Your task to perform on an android device: What's on my calendar tomorrow? Image 0: 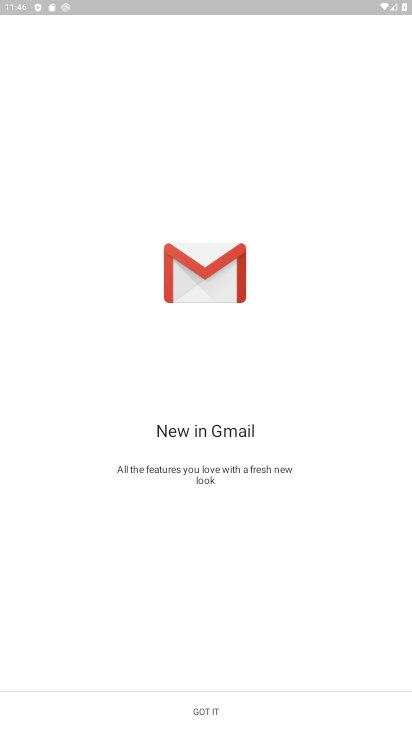
Step 0: press home button
Your task to perform on an android device: What's on my calendar tomorrow? Image 1: 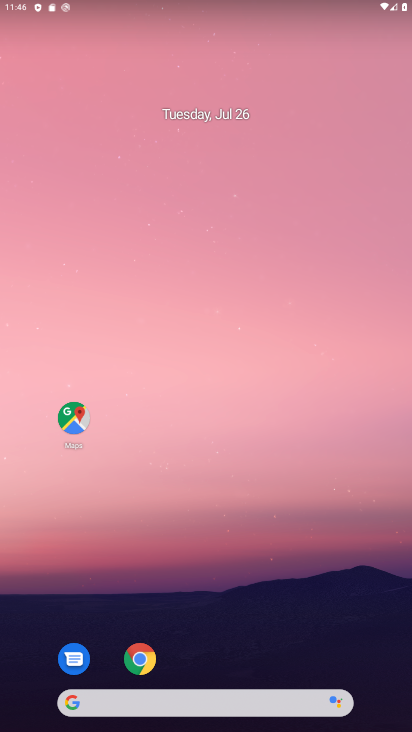
Step 1: drag from (313, 594) to (250, 293)
Your task to perform on an android device: What's on my calendar tomorrow? Image 2: 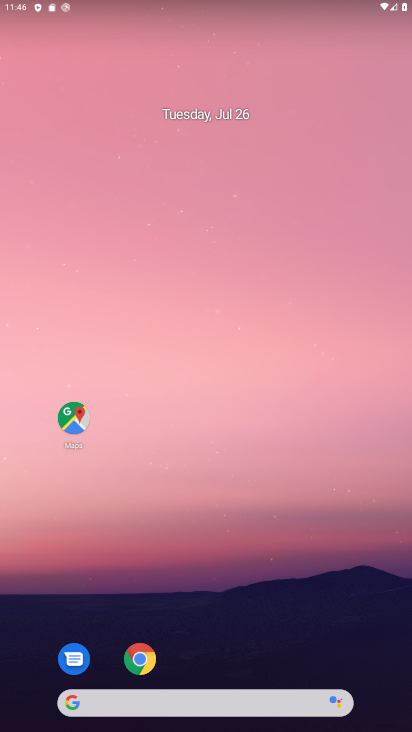
Step 2: drag from (234, 539) to (157, 262)
Your task to perform on an android device: What's on my calendar tomorrow? Image 3: 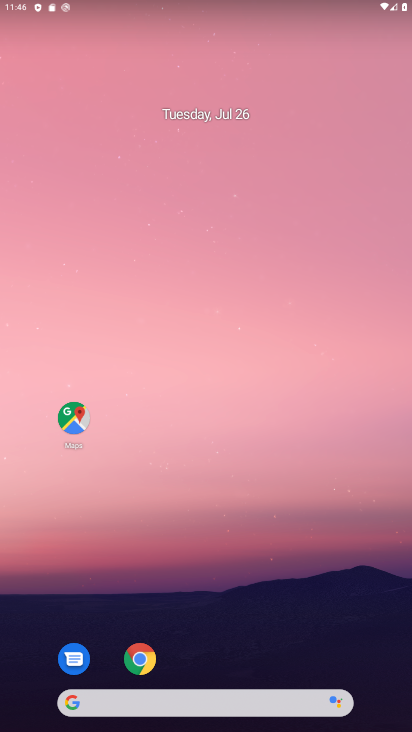
Step 3: drag from (328, 596) to (207, 163)
Your task to perform on an android device: What's on my calendar tomorrow? Image 4: 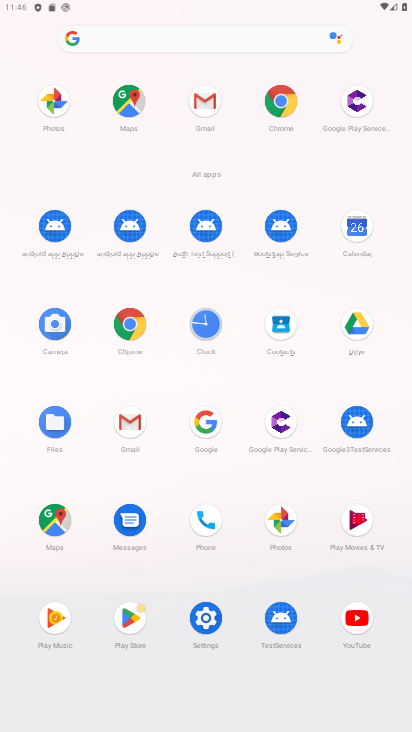
Step 4: click (353, 234)
Your task to perform on an android device: What's on my calendar tomorrow? Image 5: 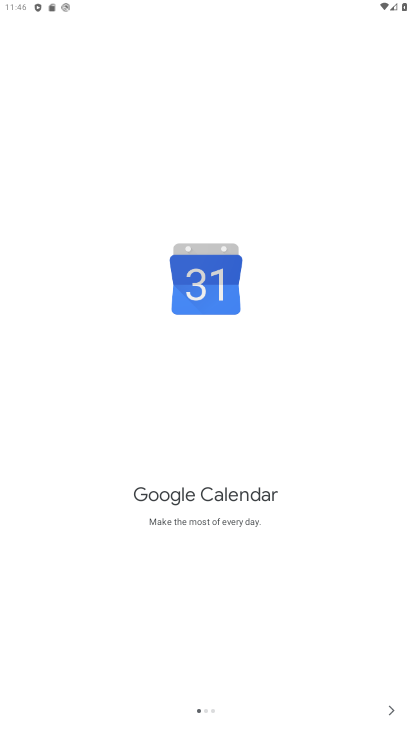
Step 5: click (394, 706)
Your task to perform on an android device: What's on my calendar tomorrow? Image 6: 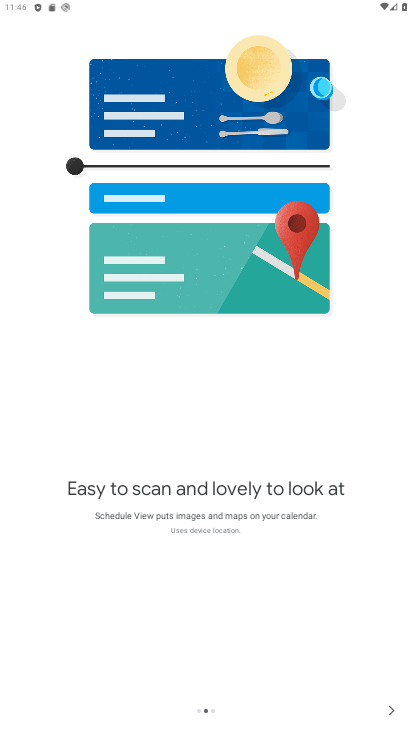
Step 6: press home button
Your task to perform on an android device: What's on my calendar tomorrow? Image 7: 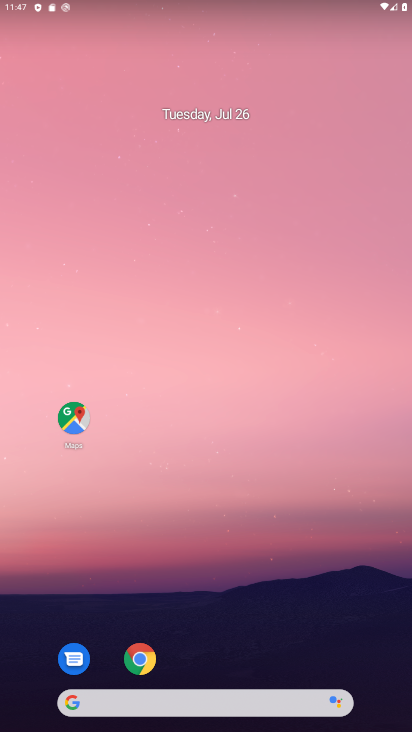
Step 7: drag from (242, 630) to (162, 208)
Your task to perform on an android device: What's on my calendar tomorrow? Image 8: 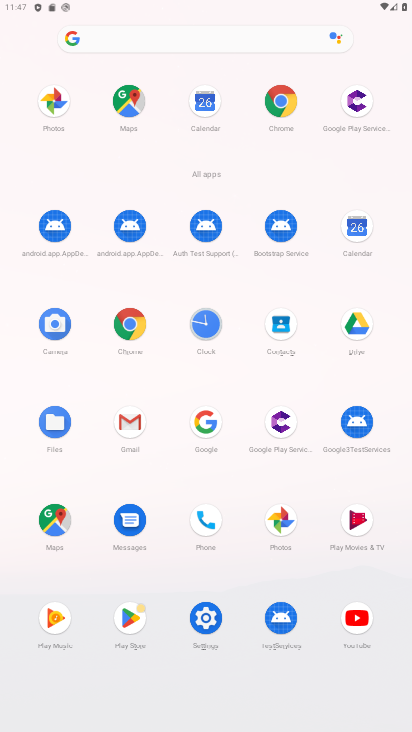
Step 8: click (363, 230)
Your task to perform on an android device: What's on my calendar tomorrow? Image 9: 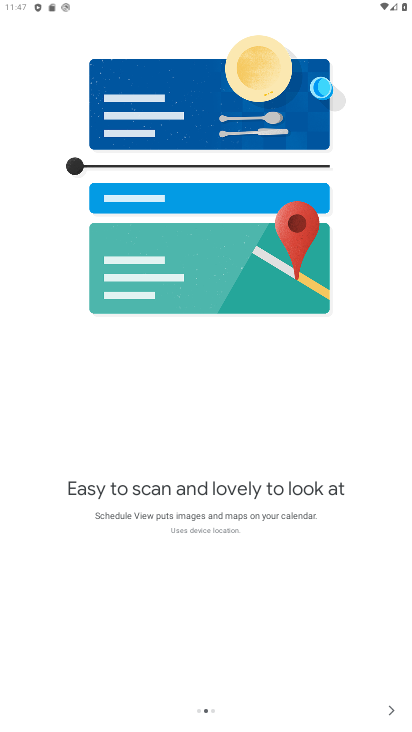
Step 9: click (398, 709)
Your task to perform on an android device: What's on my calendar tomorrow? Image 10: 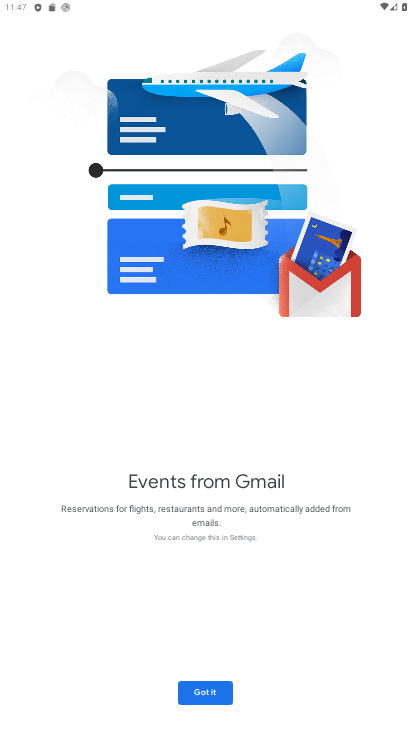
Step 10: click (391, 716)
Your task to perform on an android device: What's on my calendar tomorrow? Image 11: 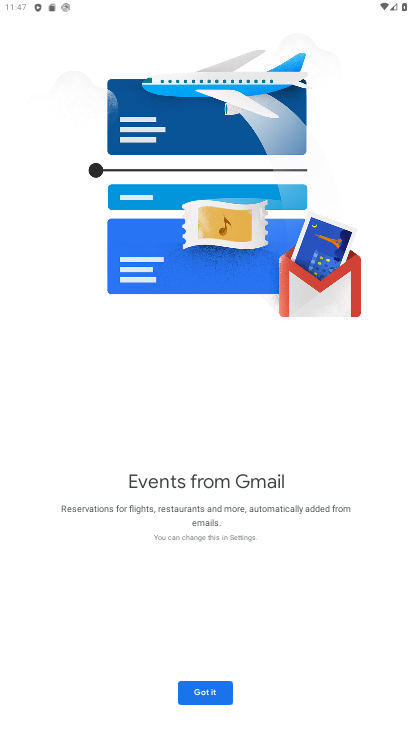
Step 11: click (217, 684)
Your task to perform on an android device: What's on my calendar tomorrow? Image 12: 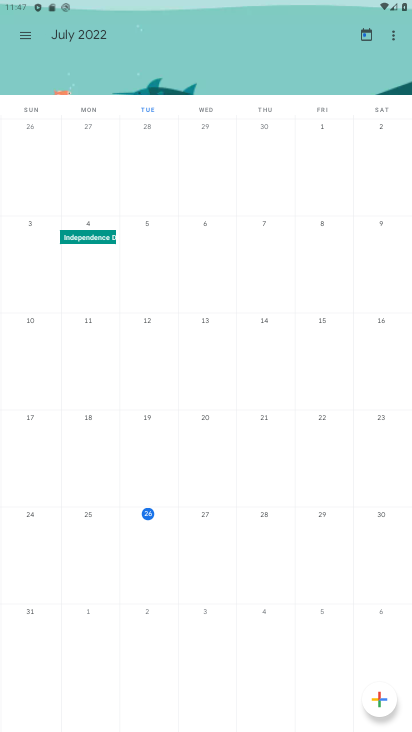
Step 12: task complete